Your task to perform on an android device: see sites visited before in the chrome app Image 0: 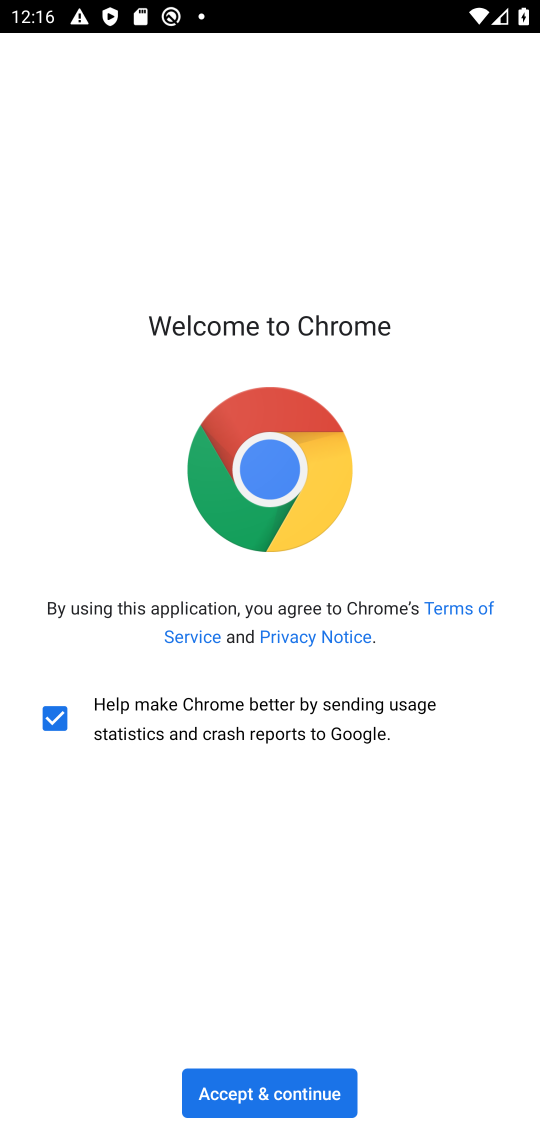
Step 0: press home button
Your task to perform on an android device: see sites visited before in the chrome app Image 1: 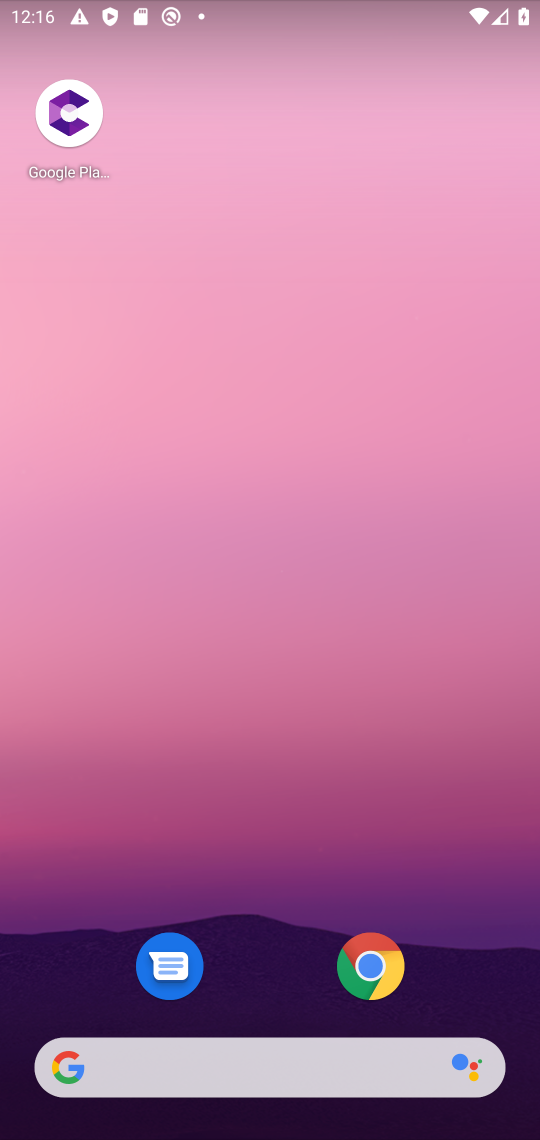
Step 1: click (409, 980)
Your task to perform on an android device: see sites visited before in the chrome app Image 2: 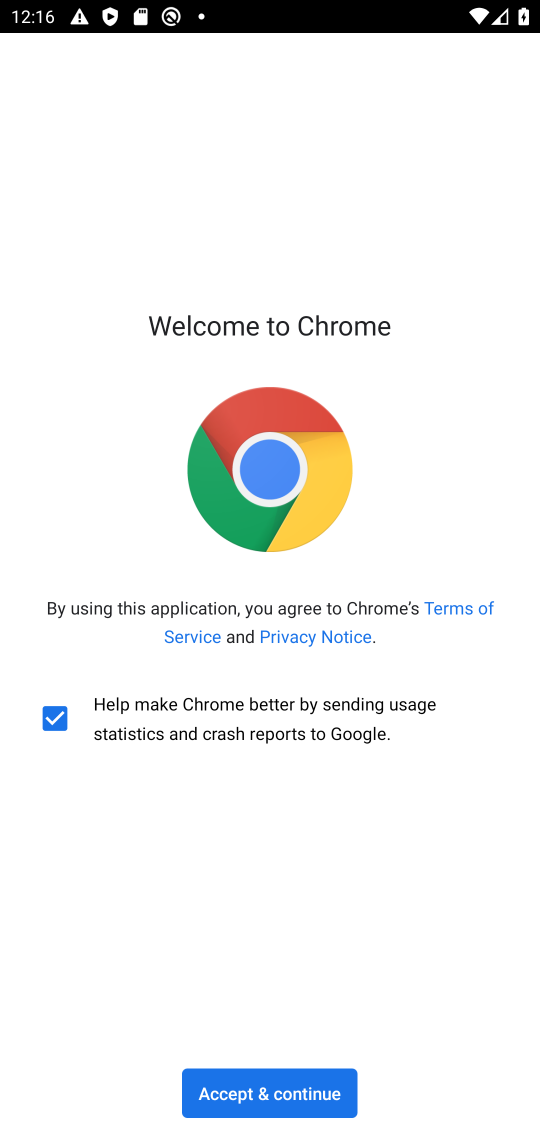
Step 2: click (283, 1090)
Your task to perform on an android device: see sites visited before in the chrome app Image 3: 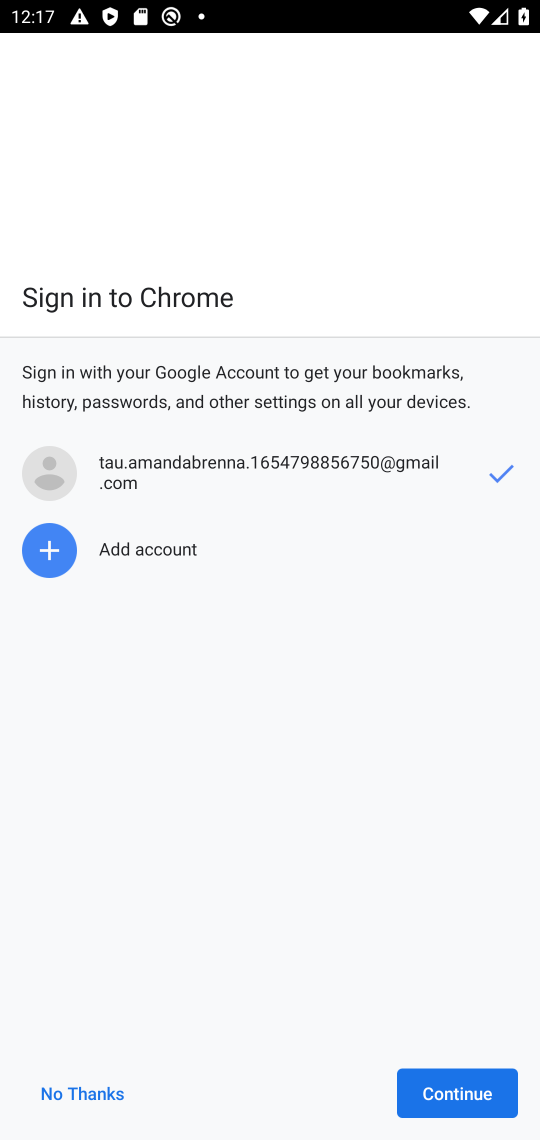
Step 3: click (422, 1096)
Your task to perform on an android device: see sites visited before in the chrome app Image 4: 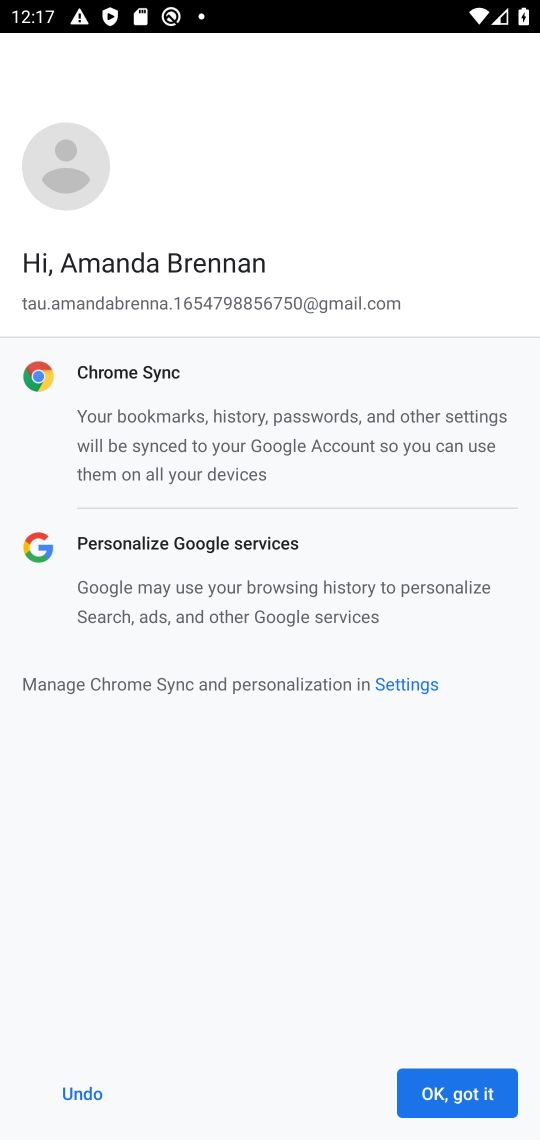
Step 4: click (478, 1085)
Your task to perform on an android device: see sites visited before in the chrome app Image 5: 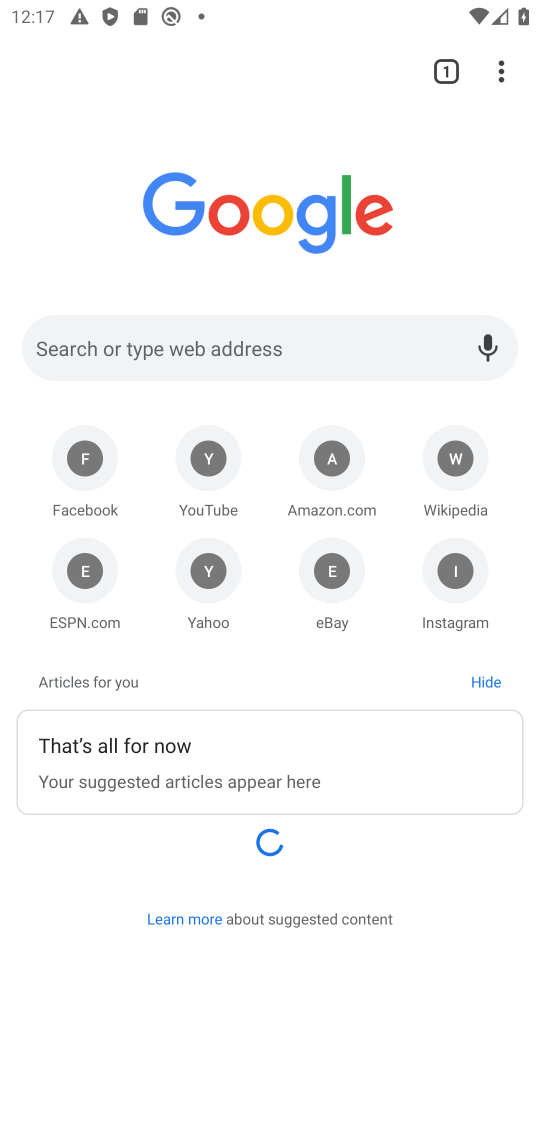
Step 5: click (491, 76)
Your task to perform on an android device: see sites visited before in the chrome app Image 6: 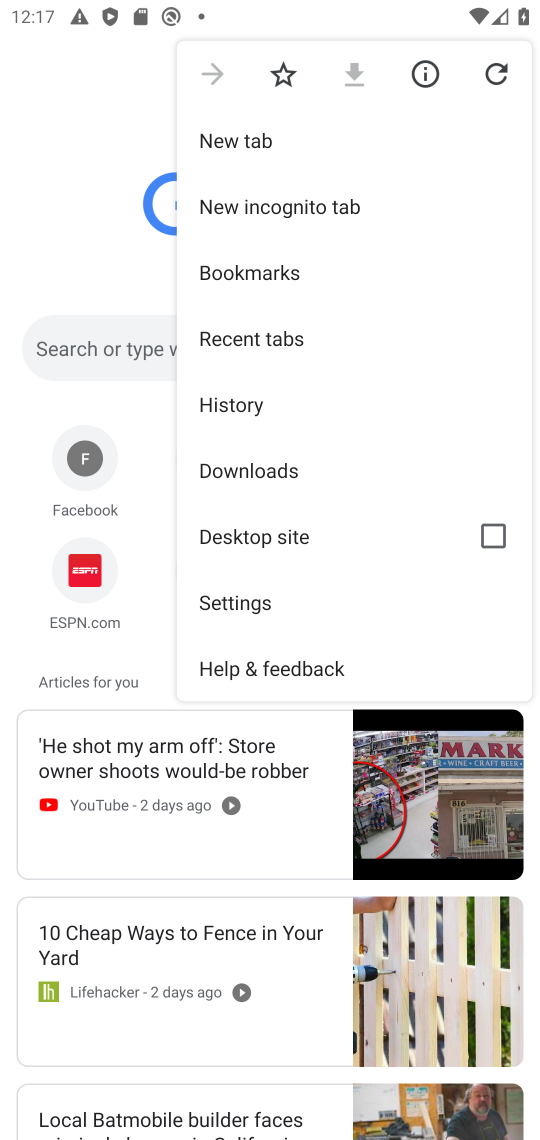
Step 6: click (260, 331)
Your task to perform on an android device: see sites visited before in the chrome app Image 7: 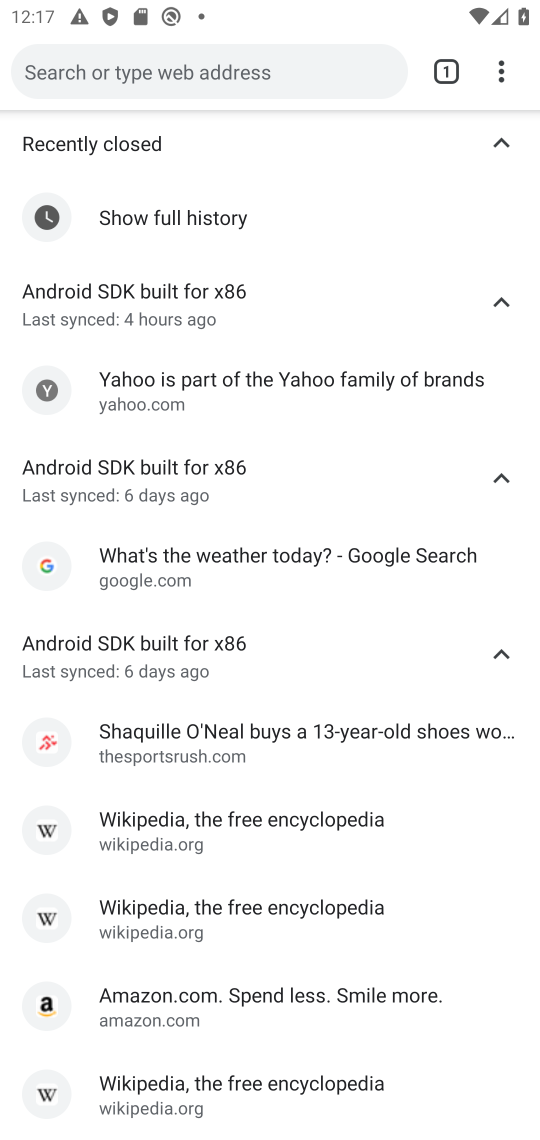
Step 7: task complete